Your task to perform on an android device: Is it going to rain tomorrow? Image 0: 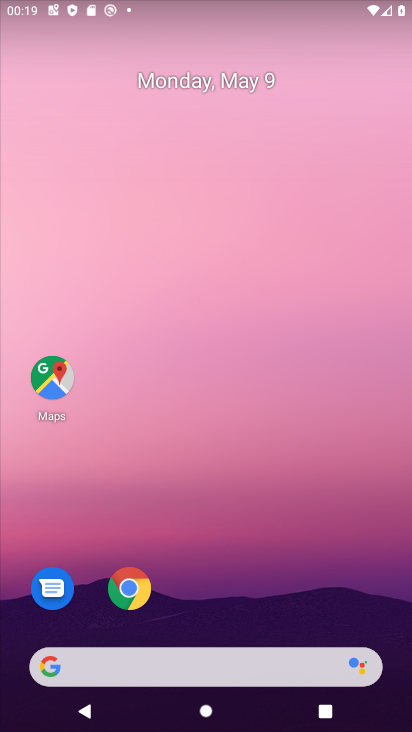
Step 0: click (214, 661)
Your task to perform on an android device: Is it going to rain tomorrow? Image 1: 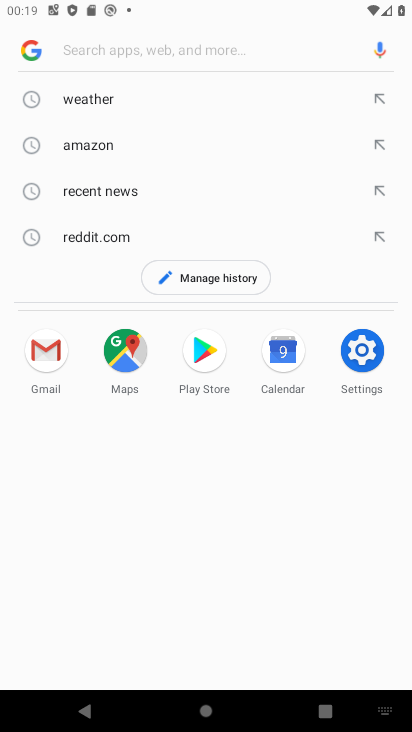
Step 1: click (93, 102)
Your task to perform on an android device: Is it going to rain tomorrow? Image 2: 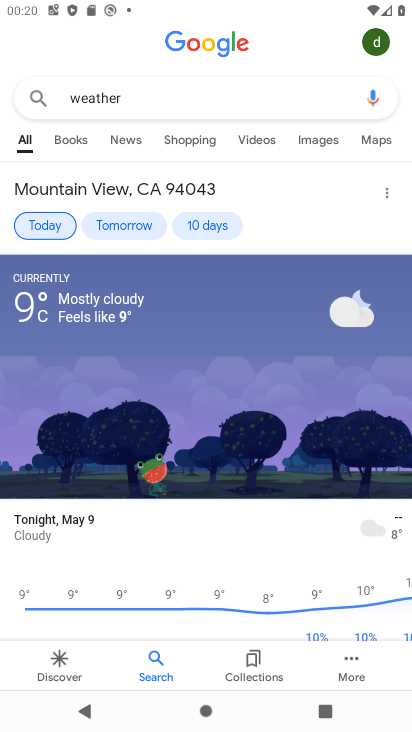
Step 2: click (125, 233)
Your task to perform on an android device: Is it going to rain tomorrow? Image 3: 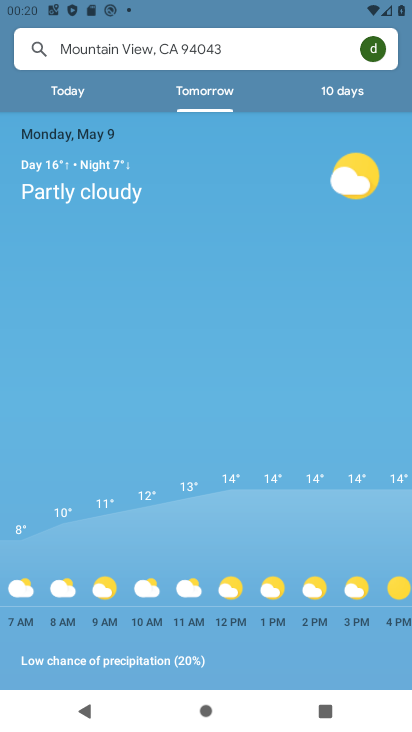
Step 3: task complete